Your task to perform on an android device: toggle notifications settings in the gmail app Image 0: 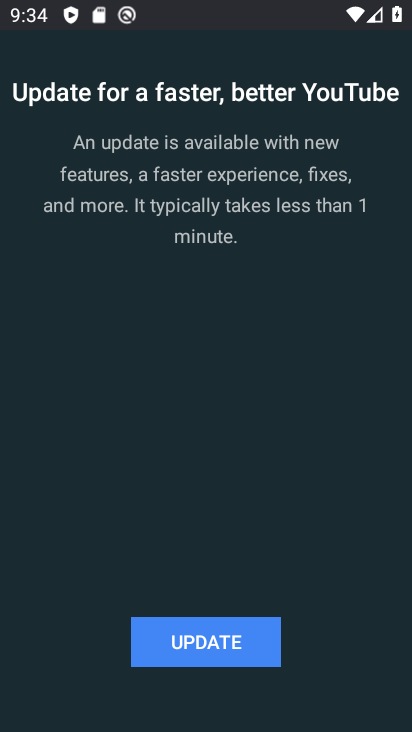
Step 0: press home button
Your task to perform on an android device: toggle notifications settings in the gmail app Image 1: 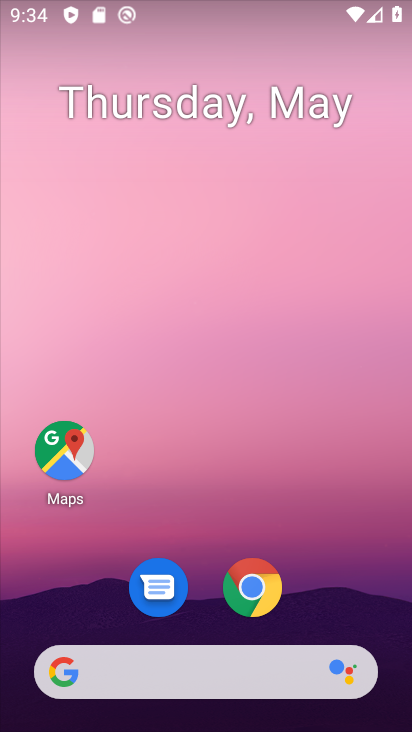
Step 1: drag from (202, 619) to (136, 18)
Your task to perform on an android device: toggle notifications settings in the gmail app Image 2: 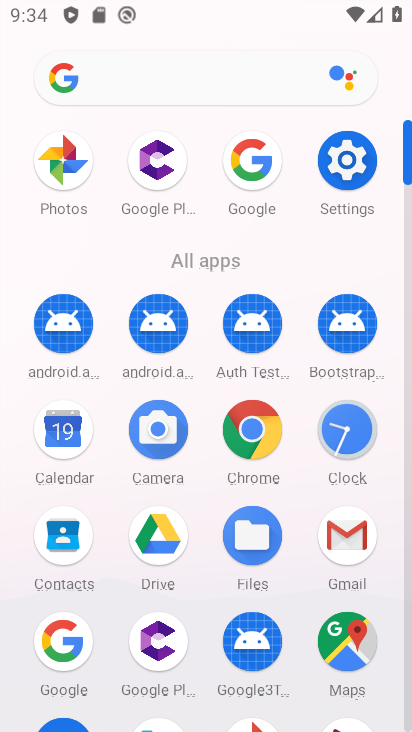
Step 2: click (343, 539)
Your task to perform on an android device: toggle notifications settings in the gmail app Image 3: 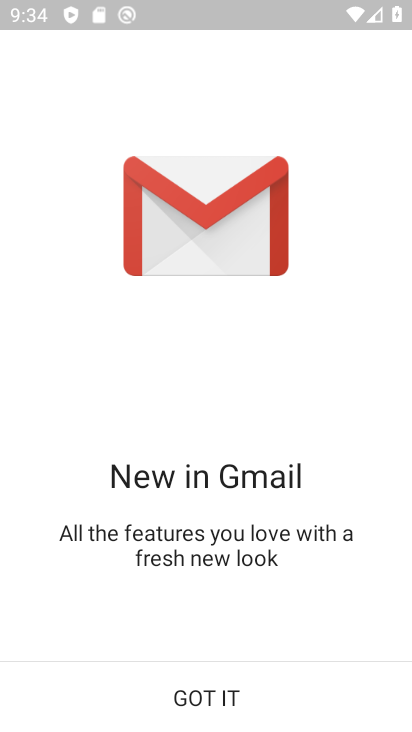
Step 3: click (219, 679)
Your task to perform on an android device: toggle notifications settings in the gmail app Image 4: 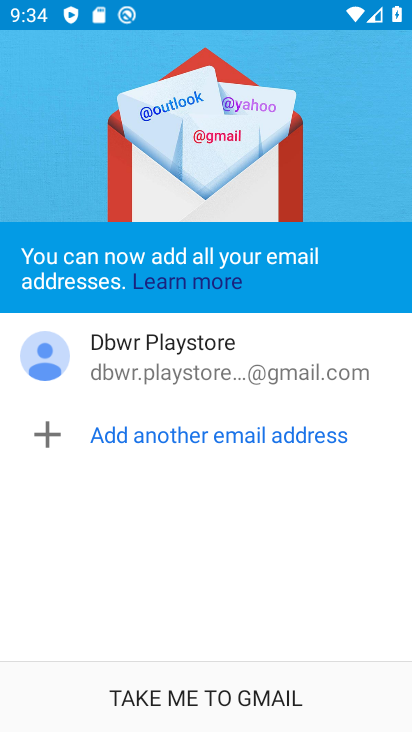
Step 4: click (227, 712)
Your task to perform on an android device: toggle notifications settings in the gmail app Image 5: 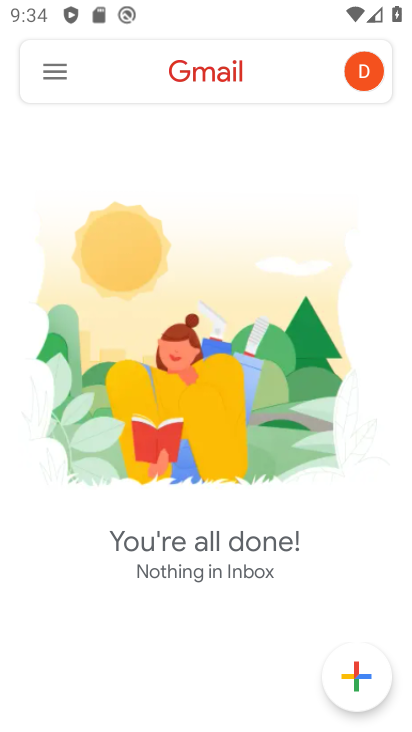
Step 5: click (54, 76)
Your task to perform on an android device: toggle notifications settings in the gmail app Image 6: 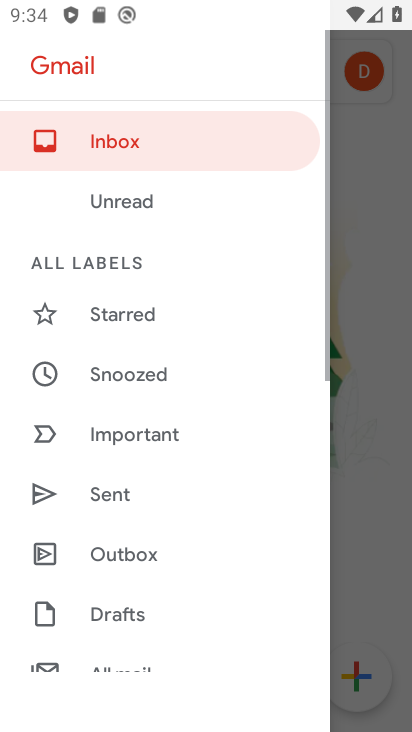
Step 6: drag from (112, 595) to (95, 125)
Your task to perform on an android device: toggle notifications settings in the gmail app Image 7: 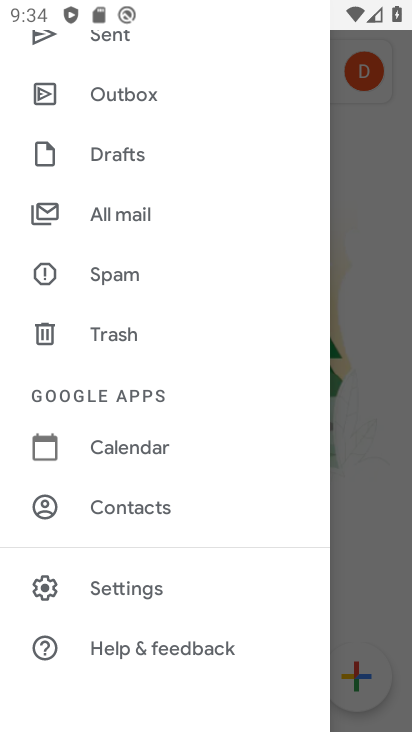
Step 7: click (127, 594)
Your task to perform on an android device: toggle notifications settings in the gmail app Image 8: 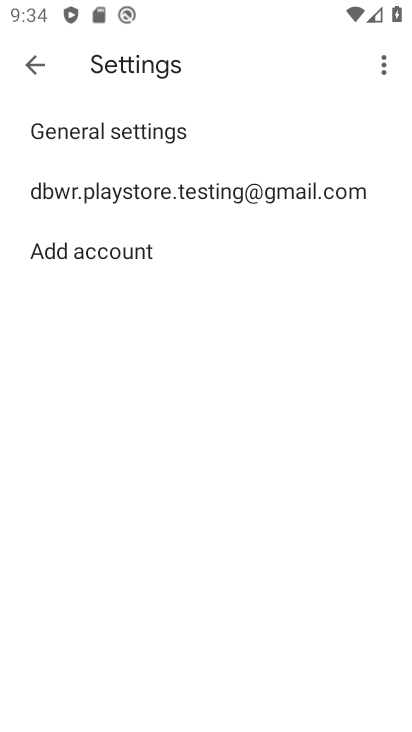
Step 8: click (120, 138)
Your task to perform on an android device: toggle notifications settings in the gmail app Image 9: 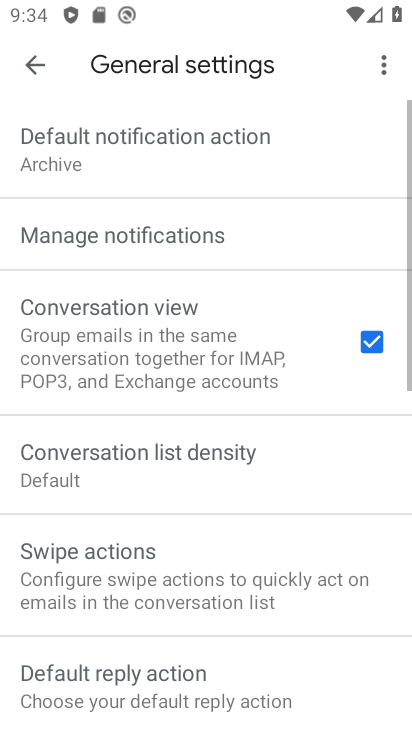
Step 9: click (128, 221)
Your task to perform on an android device: toggle notifications settings in the gmail app Image 10: 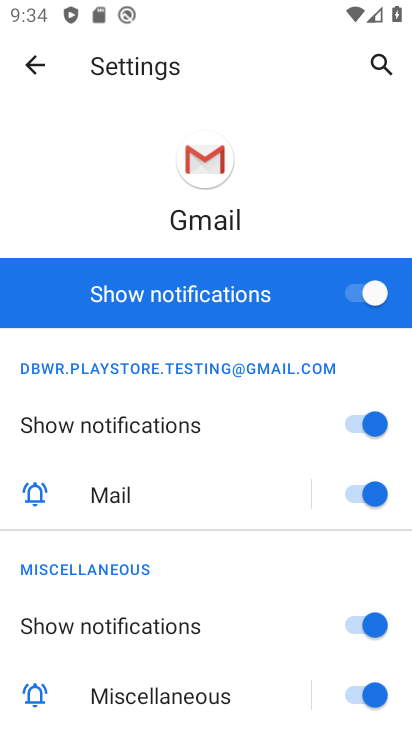
Step 10: click (356, 295)
Your task to perform on an android device: toggle notifications settings in the gmail app Image 11: 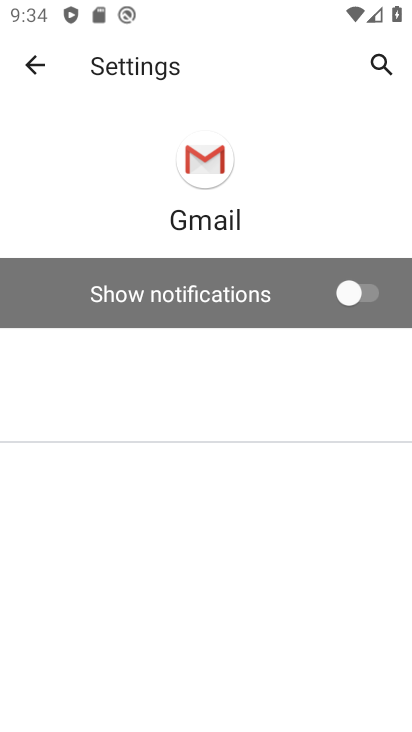
Step 11: task complete